Your task to perform on an android device: install app "Google Sheets" Image 0: 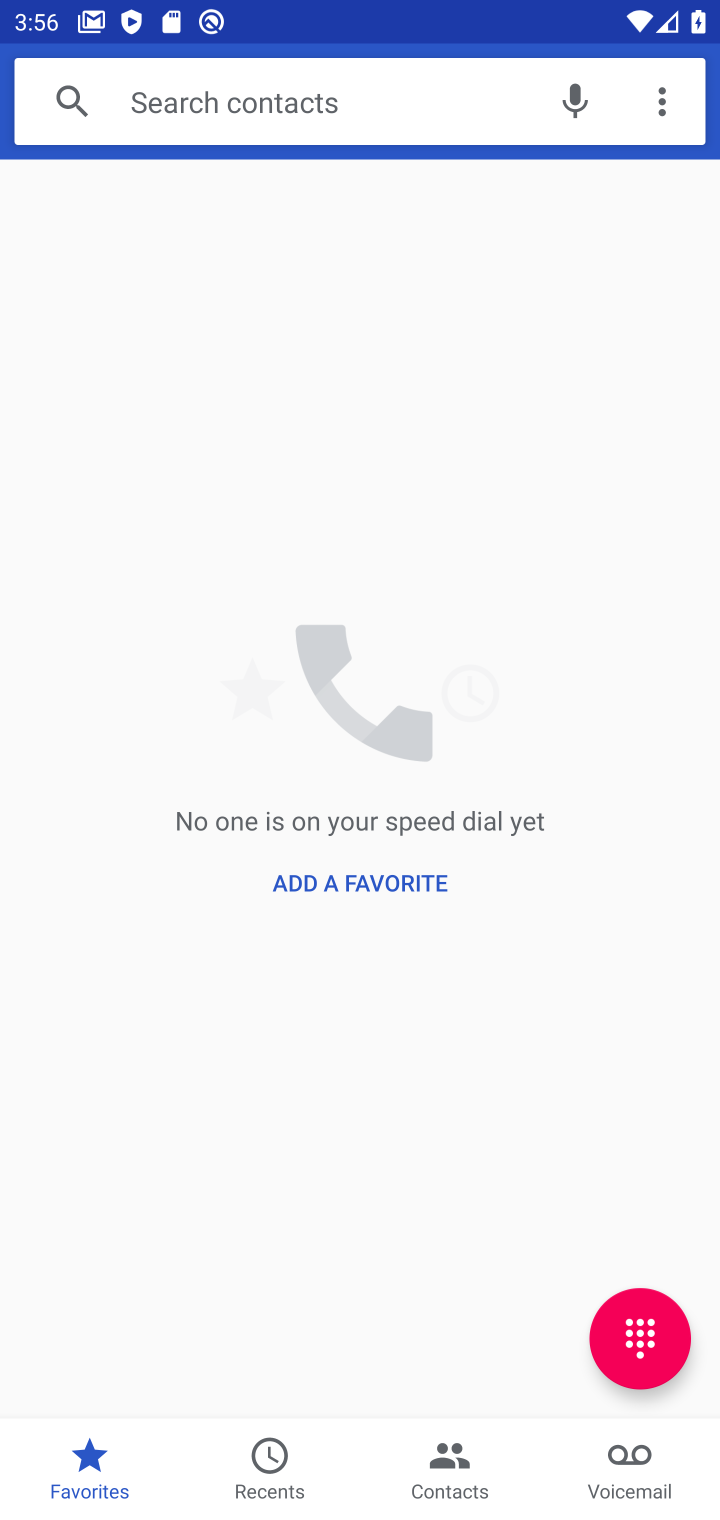
Step 0: press home button
Your task to perform on an android device: install app "Google Sheets" Image 1: 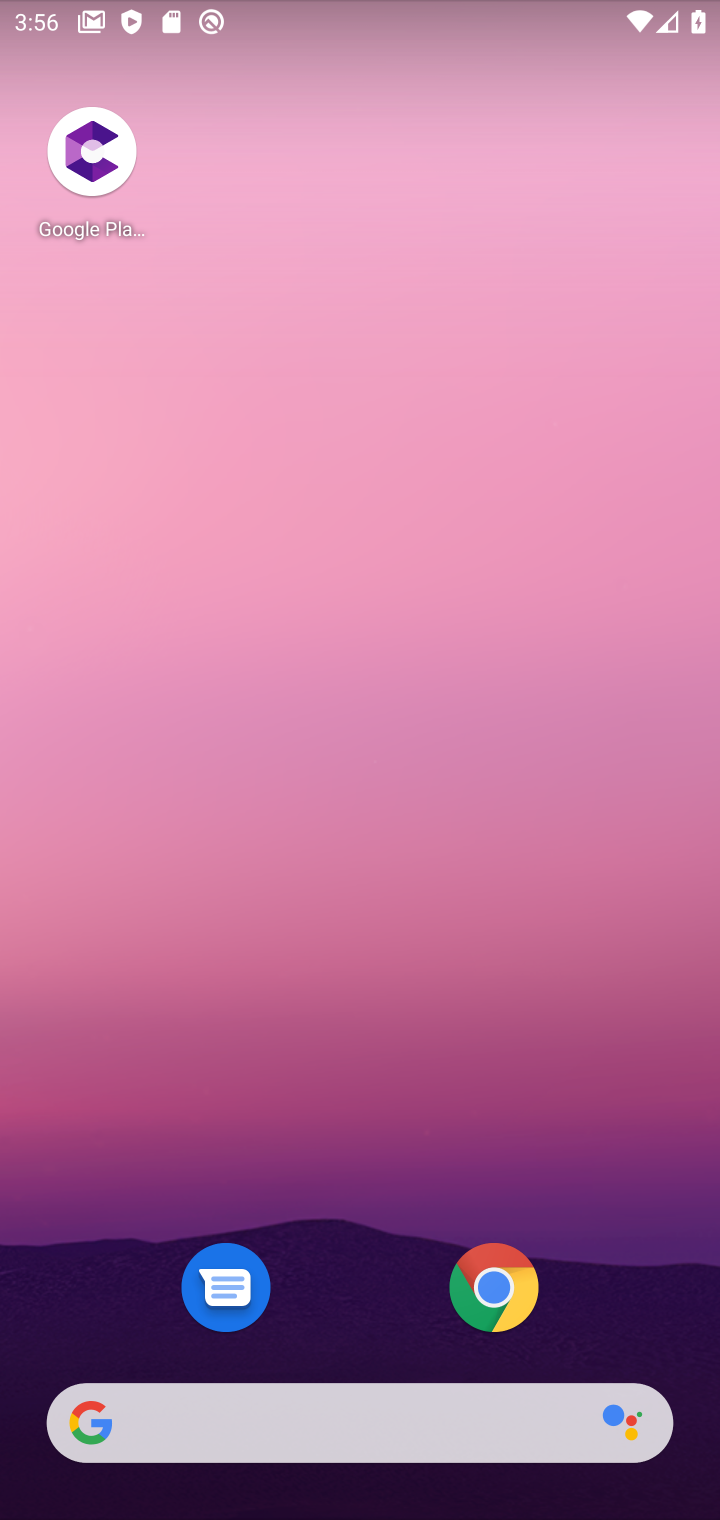
Step 1: drag from (319, 687) to (193, 252)
Your task to perform on an android device: install app "Google Sheets" Image 2: 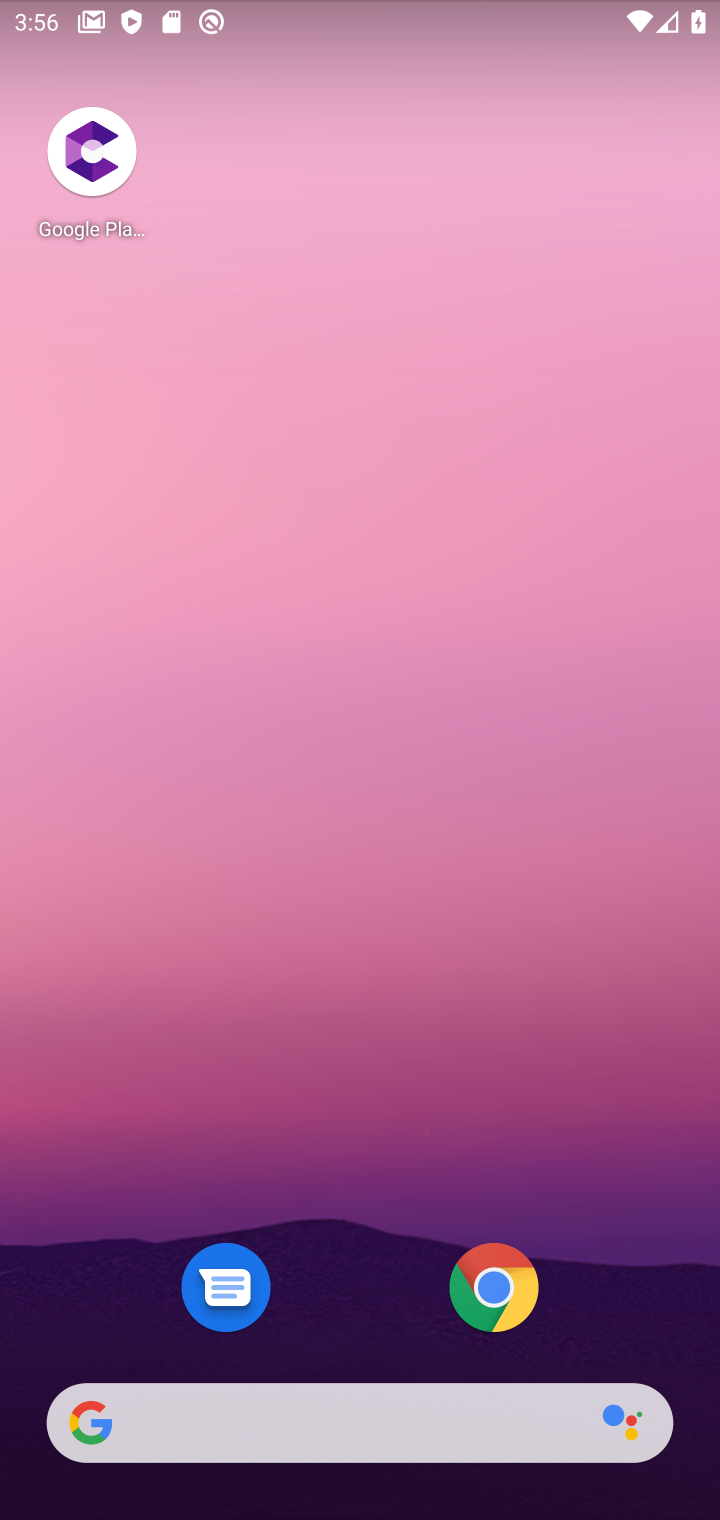
Step 2: drag from (359, 1155) to (368, 354)
Your task to perform on an android device: install app "Google Sheets" Image 3: 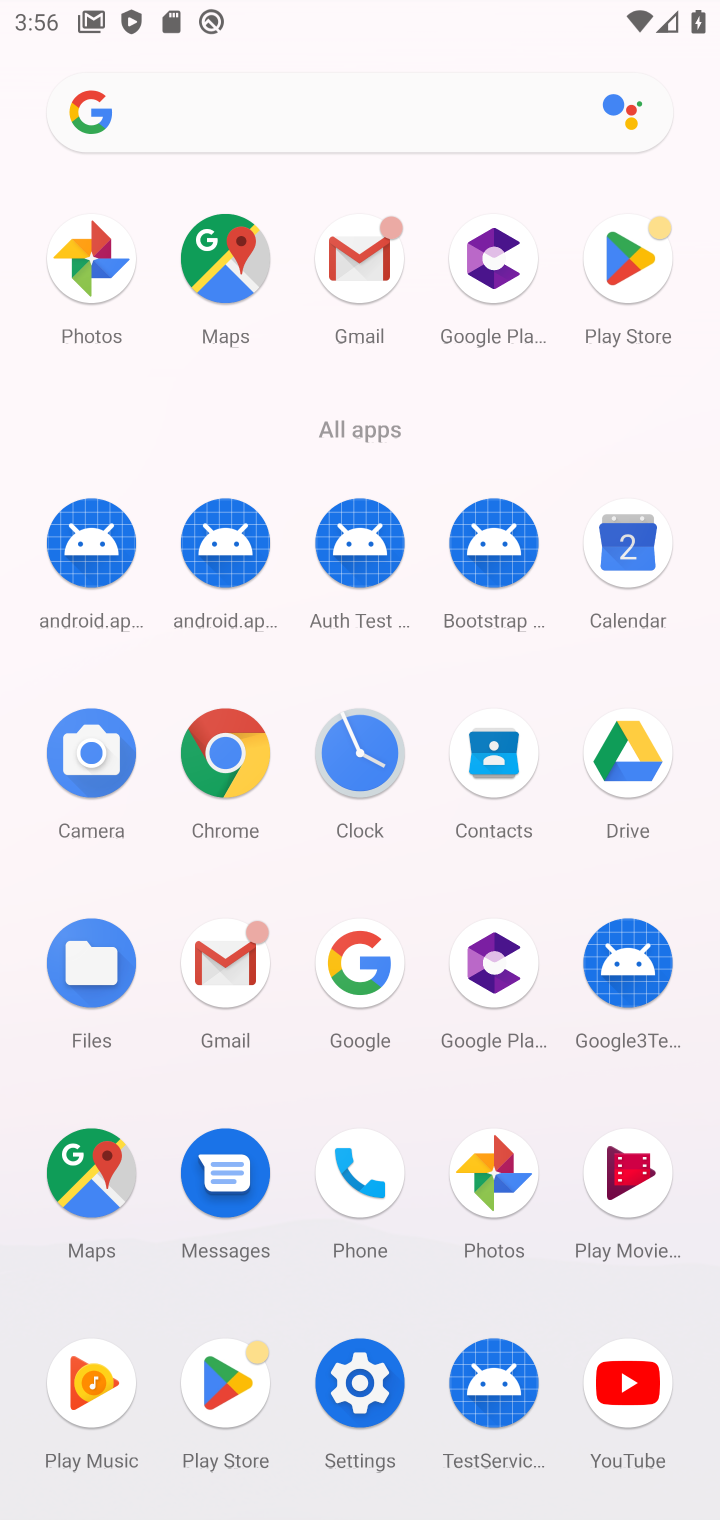
Step 3: click (663, 248)
Your task to perform on an android device: install app "Google Sheets" Image 4: 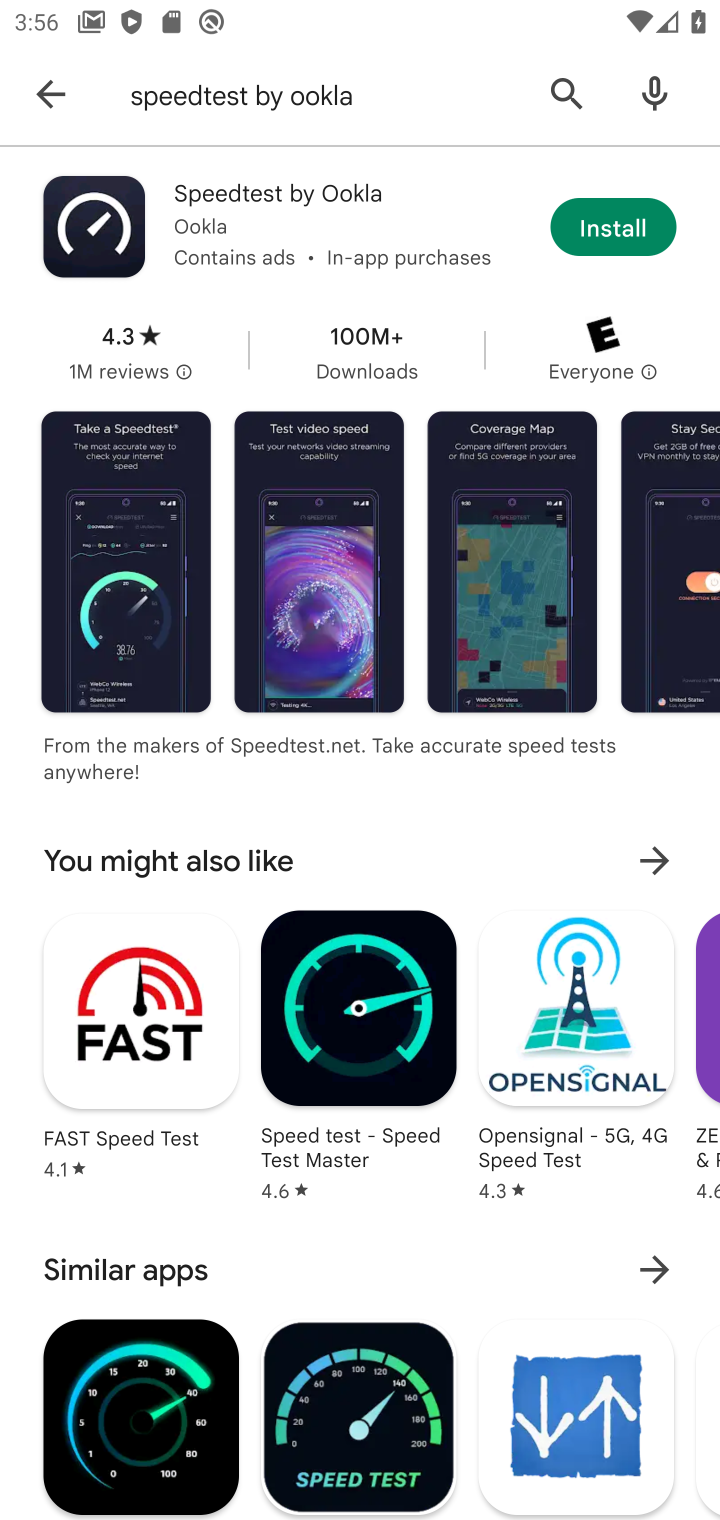
Step 4: click (570, 111)
Your task to perform on an android device: install app "Google Sheets" Image 5: 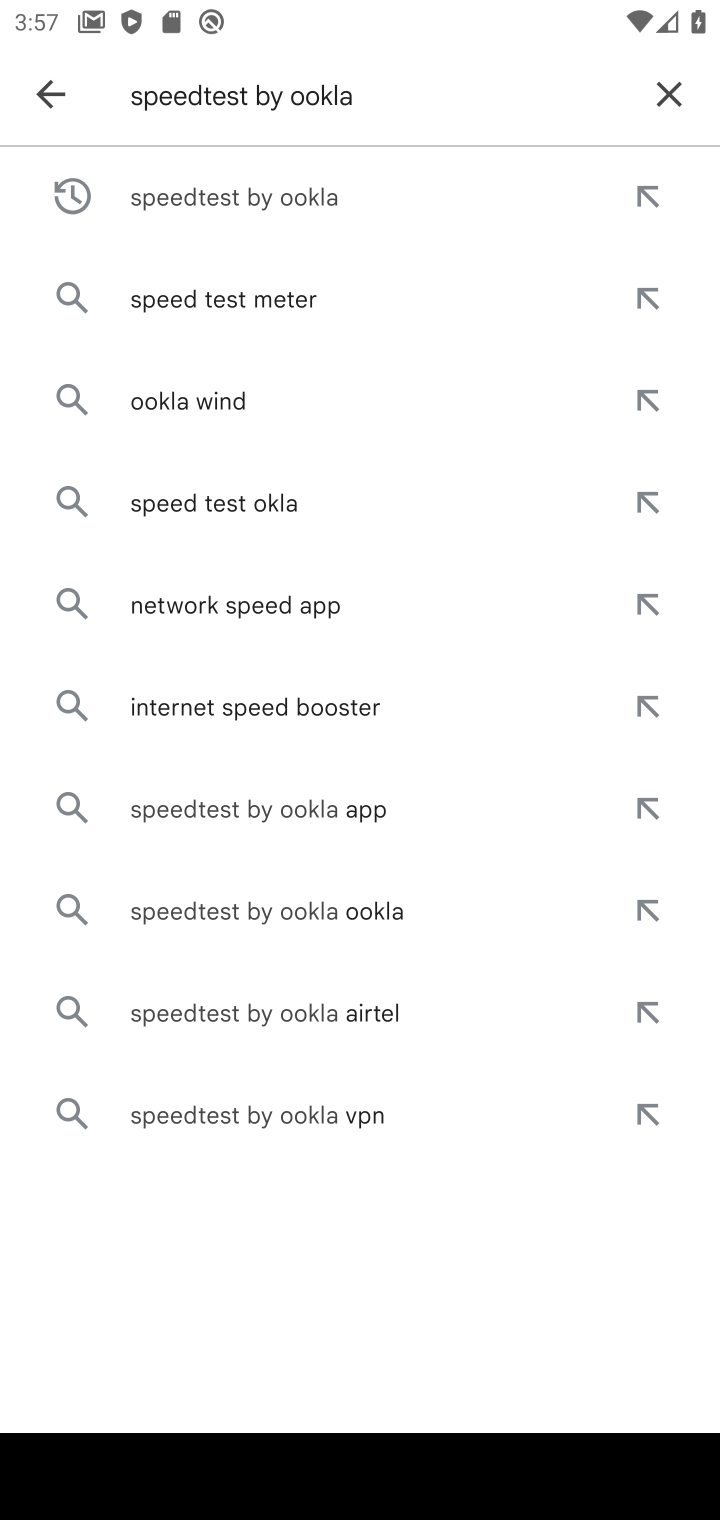
Step 5: click (680, 89)
Your task to perform on an android device: install app "Google Sheets" Image 6: 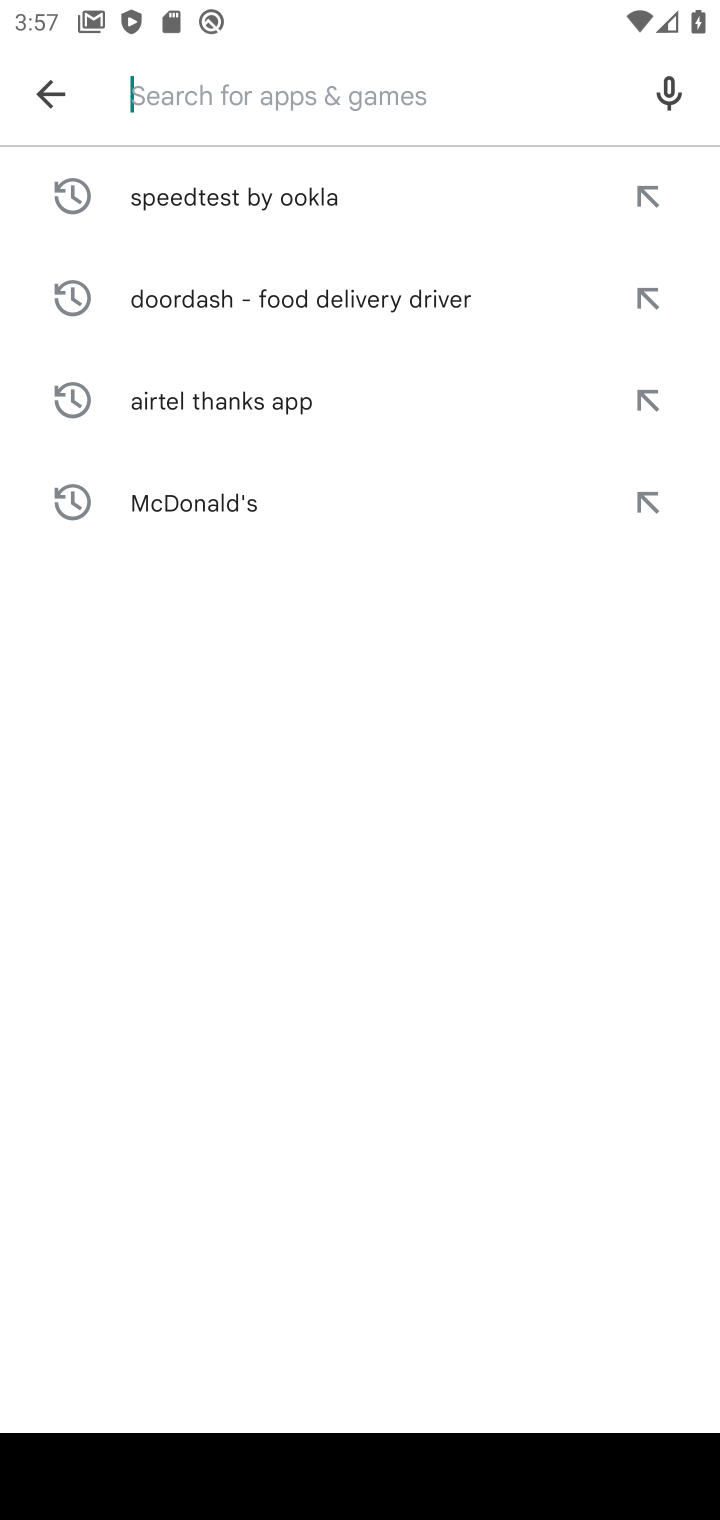
Step 6: type "Google Sheets"
Your task to perform on an android device: install app "Google Sheets" Image 7: 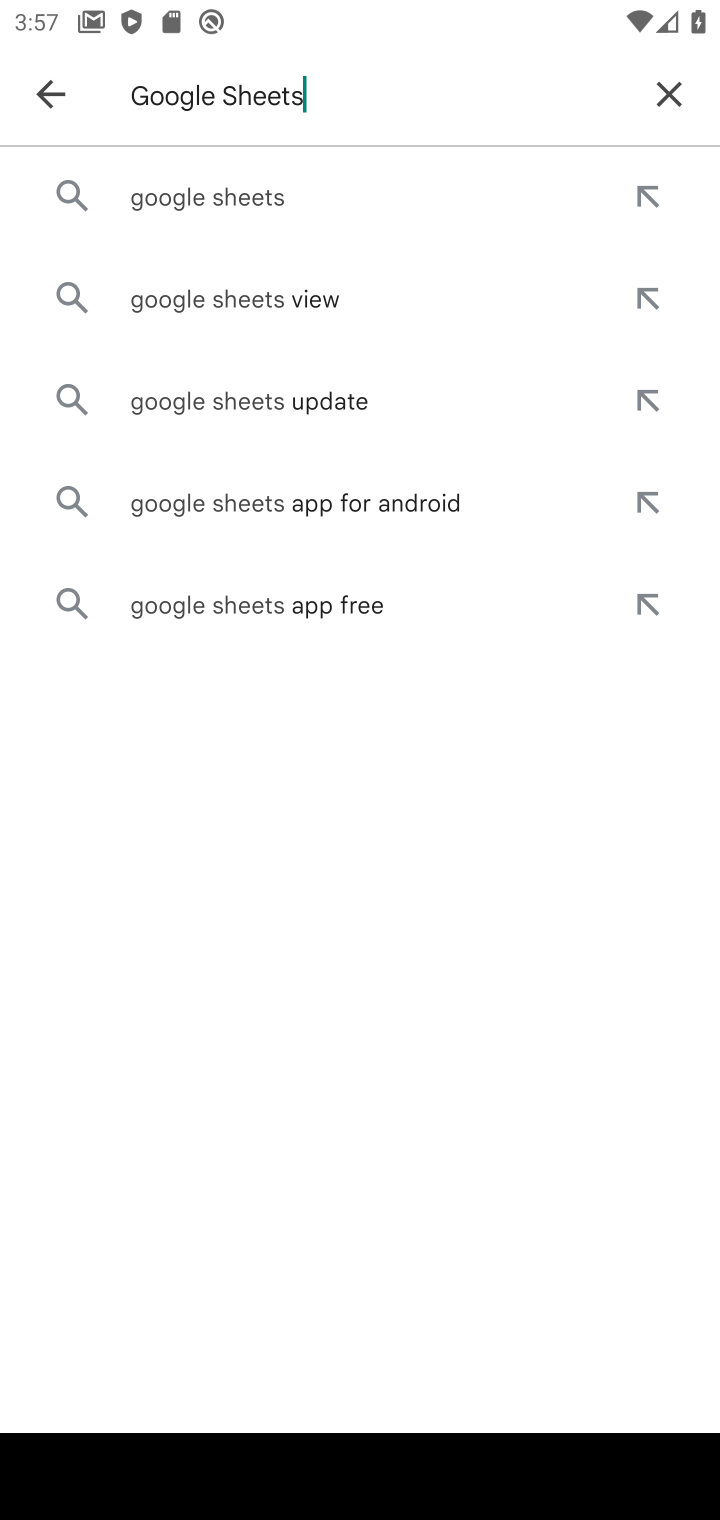
Step 7: click (197, 207)
Your task to perform on an android device: install app "Google Sheets" Image 8: 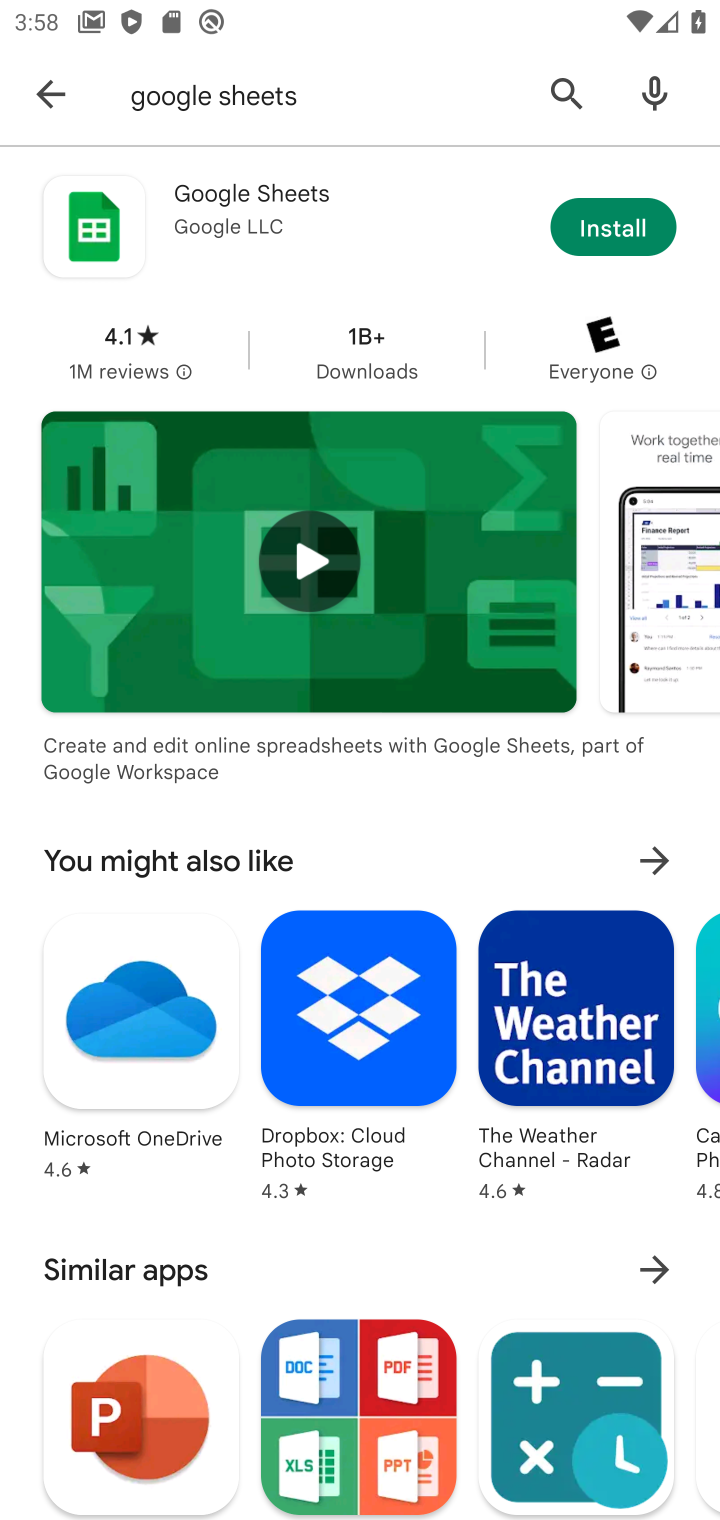
Step 8: click (576, 231)
Your task to perform on an android device: install app "Google Sheets" Image 9: 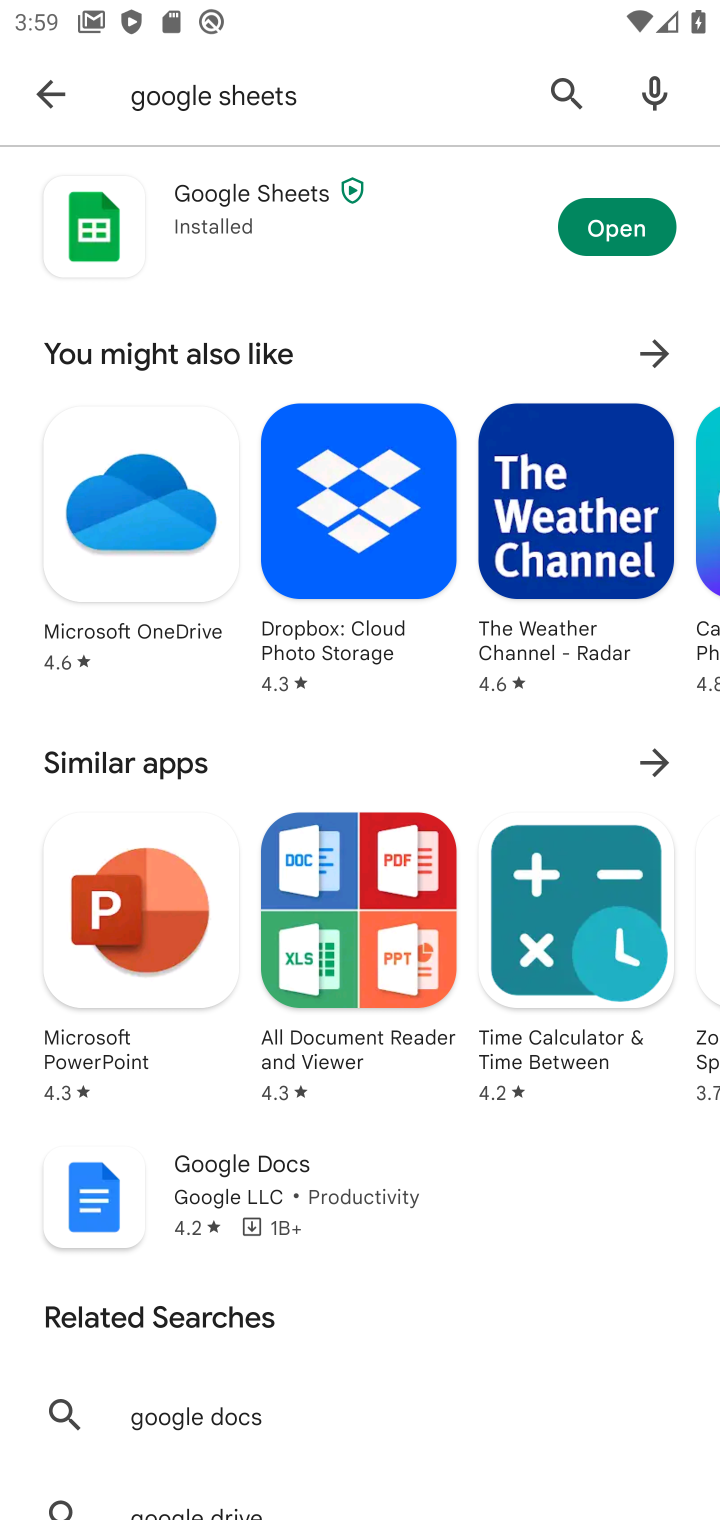
Step 9: task complete